Your task to perform on an android device: change the clock display to show seconds Image 0: 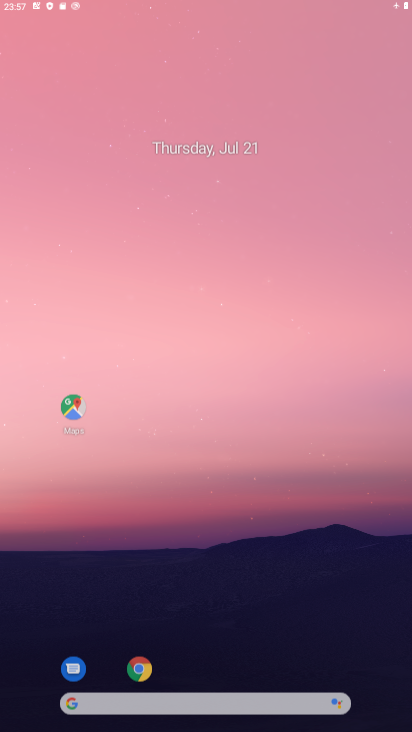
Step 0: click (252, 291)
Your task to perform on an android device: change the clock display to show seconds Image 1: 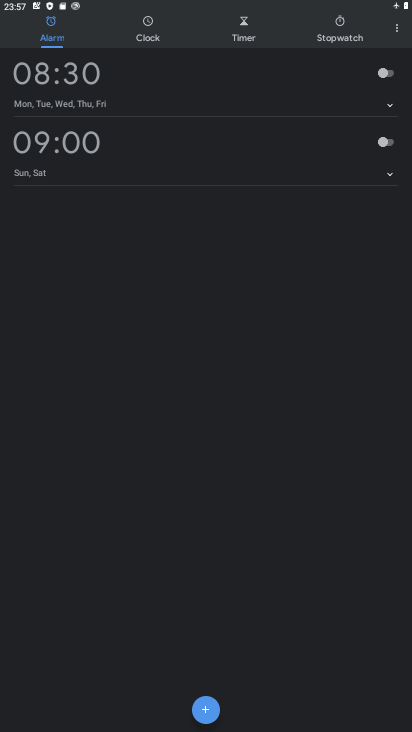
Step 1: press home button
Your task to perform on an android device: change the clock display to show seconds Image 2: 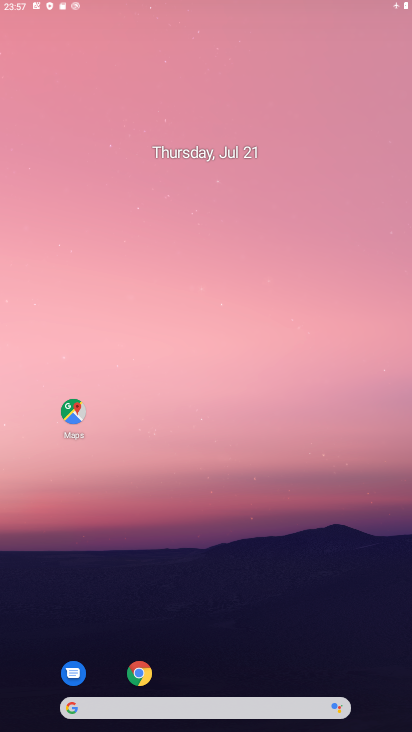
Step 2: drag from (245, 613) to (240, 204)
Your task to perform on an android device: change the clock display to show seconds Image 3: 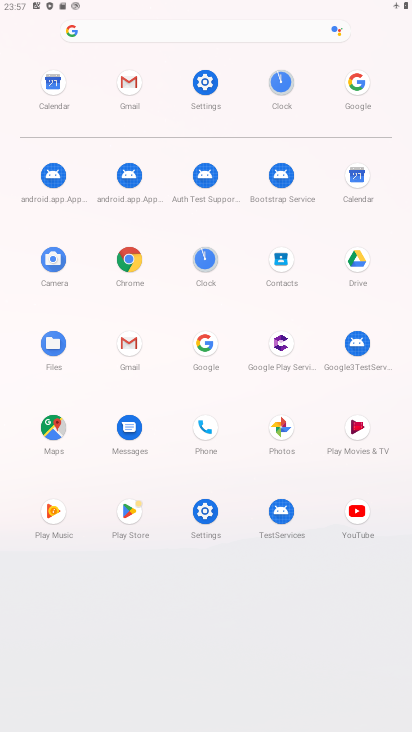
Step 3: click (270, 92)
Your task to perform on an android device: change the clock display to show seconds Image 4: 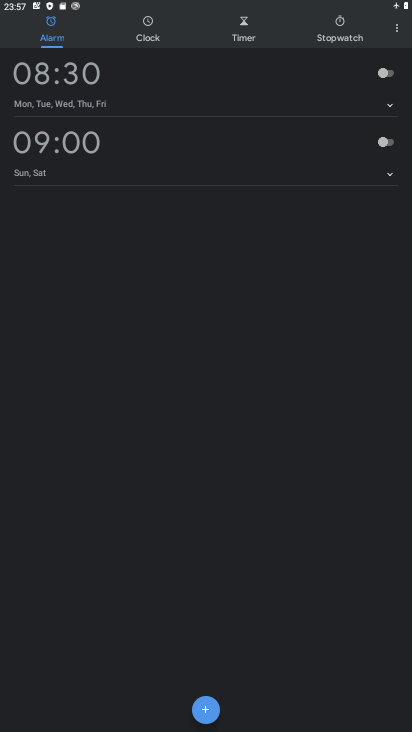
Step 4: click (398, 32)
Your task to perform on an android device: change the clock display to show seconds Image 5: 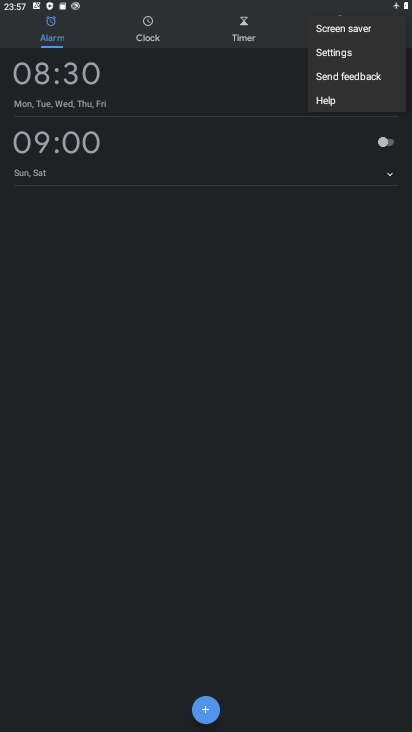
Step 5: click (357, 63)
Your task to perform on an android device: change the clock display to show seconds Image 6: 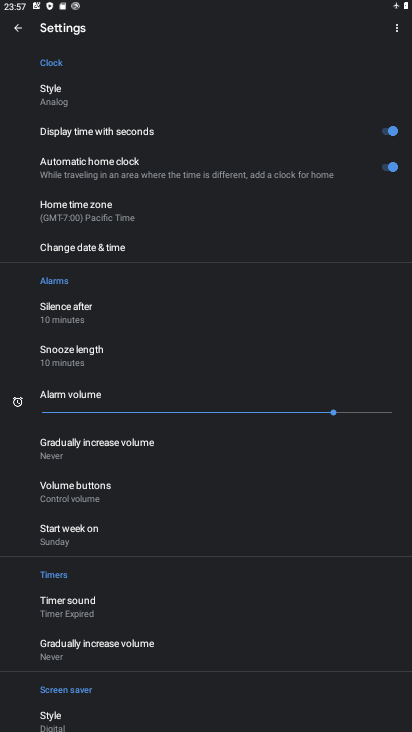
Step 6: task complete